Your task to perform on an android device: open the mobile data screen to see how much data has been used Image 0: 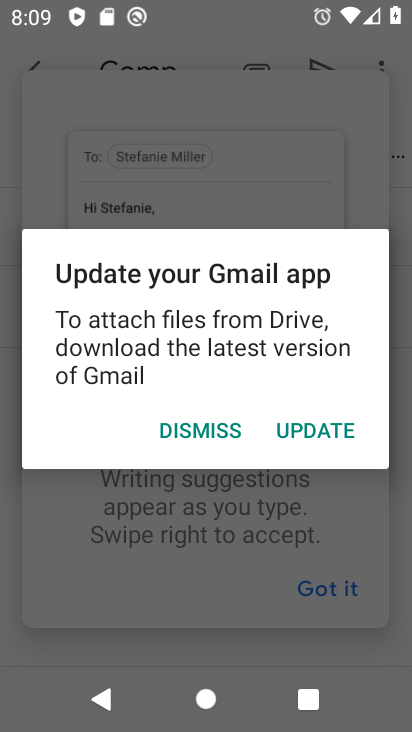
Step 0: press back button
Your task to perform on an android device: open the mobile data screen to see how much data has been used Image 1: 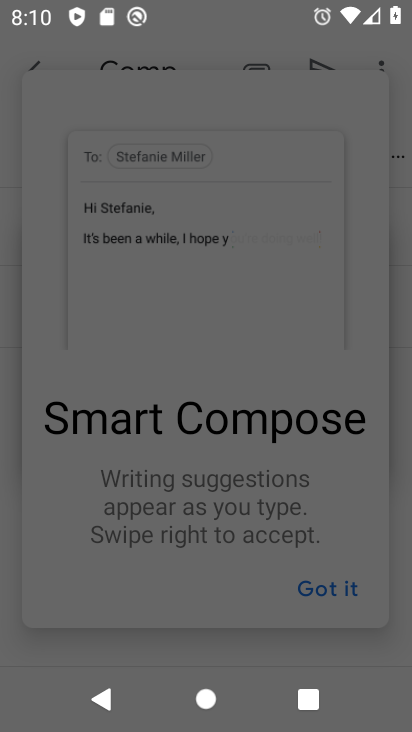
Step 1: press home button
Your task to perform on an android device: open the mobile data screen to see how much data has been used Image 2: 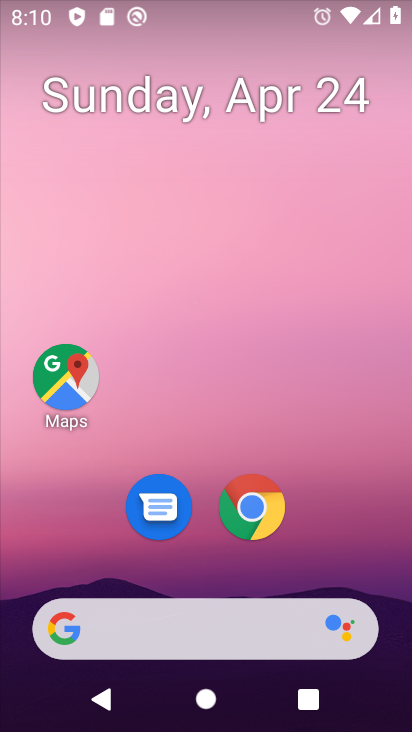
Step 2: drag from (371, 542) to (282, 208)
Your task to perform on an android device: open the mobile data screen to see how much data has been used Image 3: 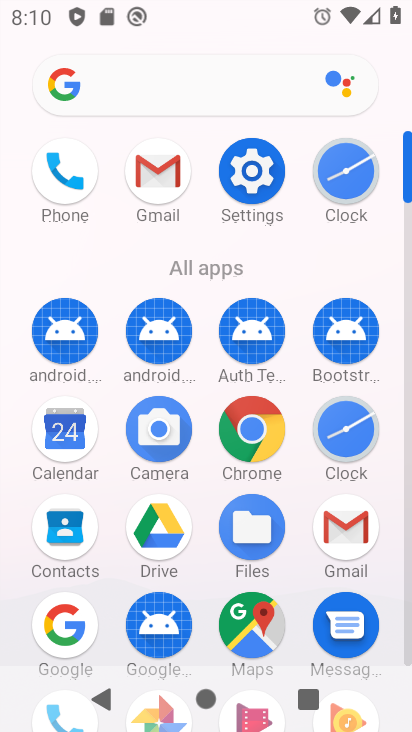
Step 3: click (260, 185)
Your task to perform on an android device: open the mobile data screen to see how much data has been used Image 4: 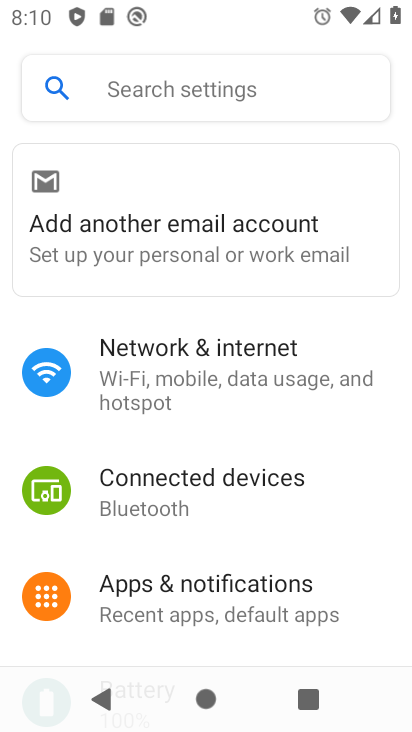
Step 4: click (242, 425)
Your task to perform on an android device: open the mobile data screen to see how much data has been used Image 5: 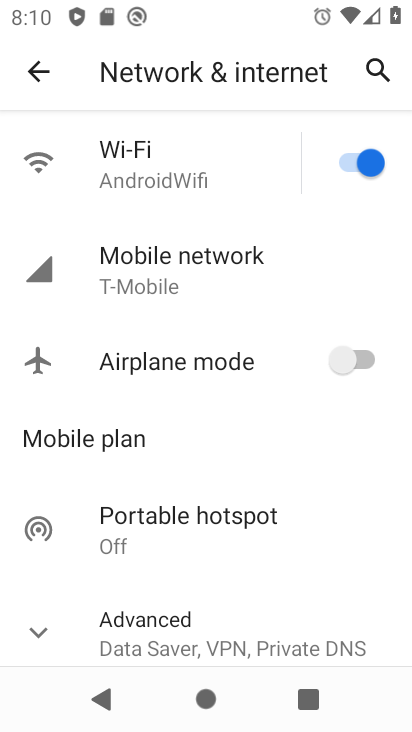
Step 5: click (249, 284)
Your task to perform on an android device: open the mobile data screen to see how much data has been used Image 6: 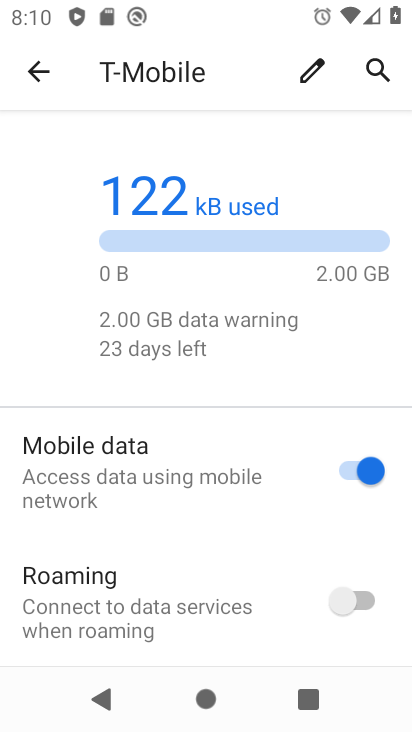
Step 6: task complete